Your task to perform on an android device: set the timer Image 0: 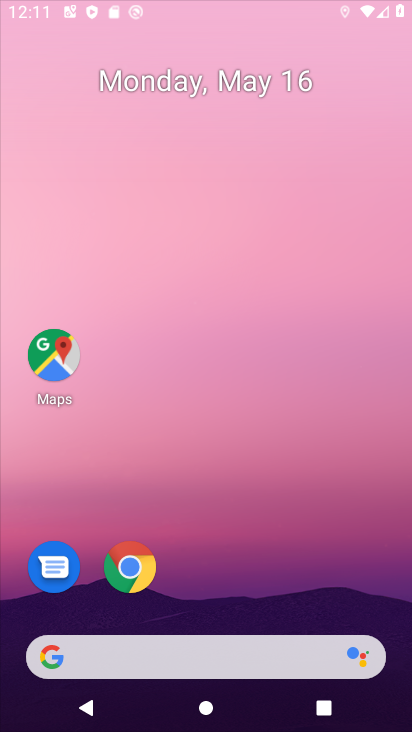
Step 0: drag from (236, 509) to (235, 42)
Your task to perform on an android device: set the timer Image 1: 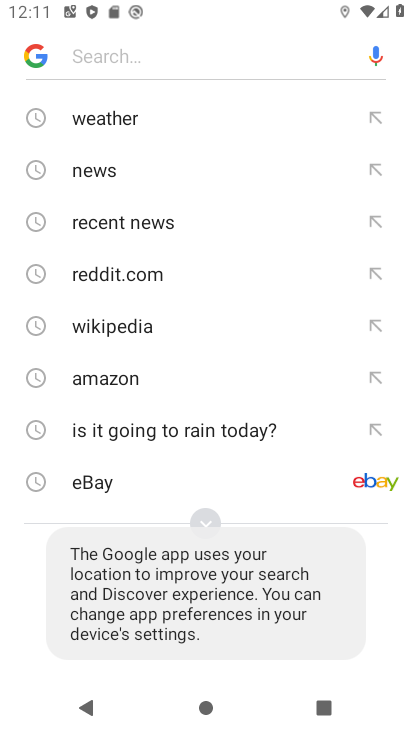
Step 1: press home button
Your task to perform on an android device: set the timer Image 2: 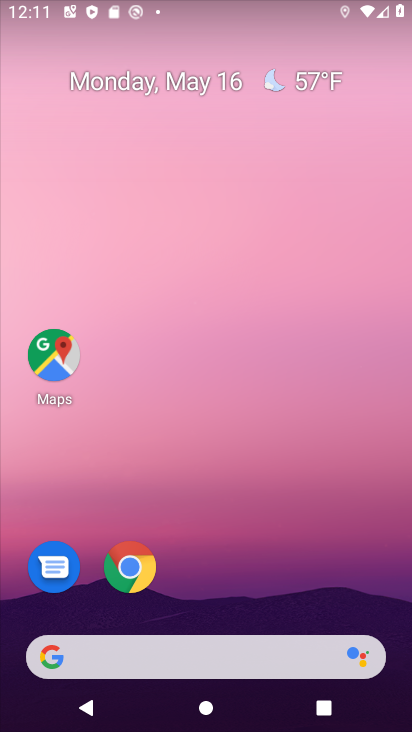
Step 2: drag from (265, 582) to (261, 129)
Your task to perform on an android device: set the timer Image 3: 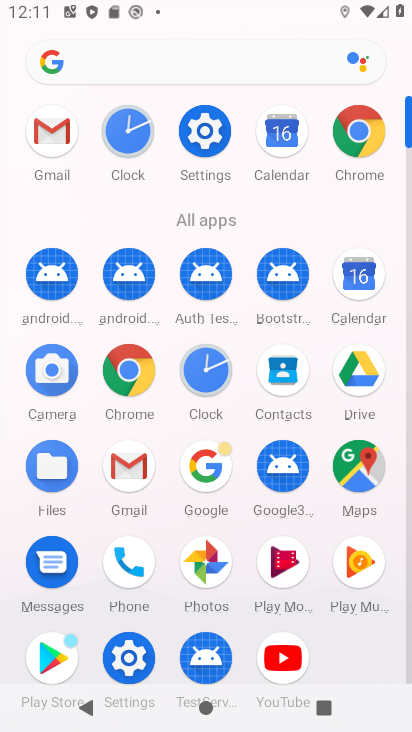
Step 3: click (122, 135)
Your task to perform on an android device: set the timer Image 4: 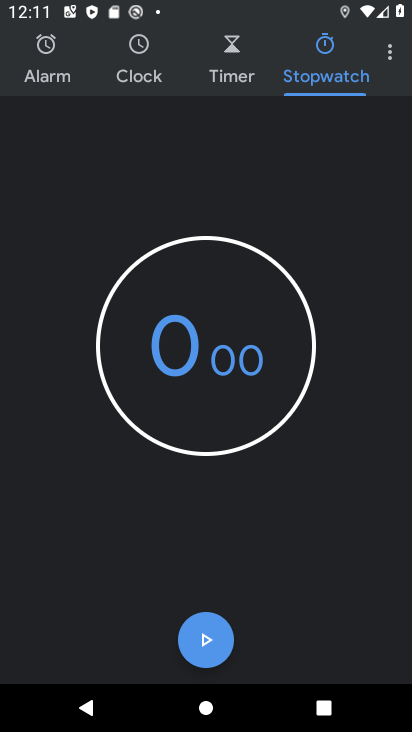
Step 4: click (238, 76)
Your task to perform on an android device: set the timer Image 5: 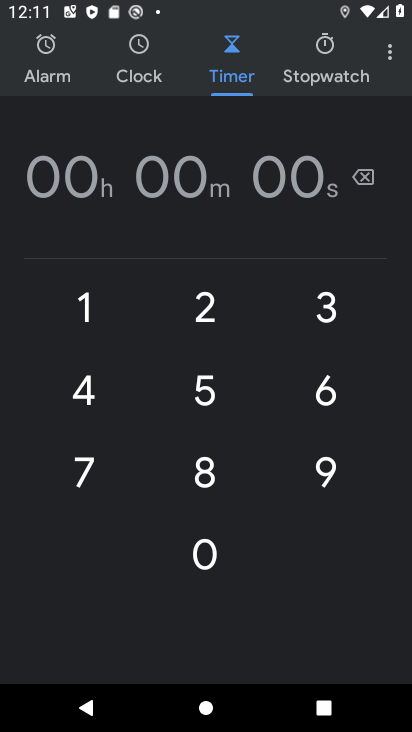
Step 5: click (217, 388)
Your task to perform on an android device: set the timer Image 6: 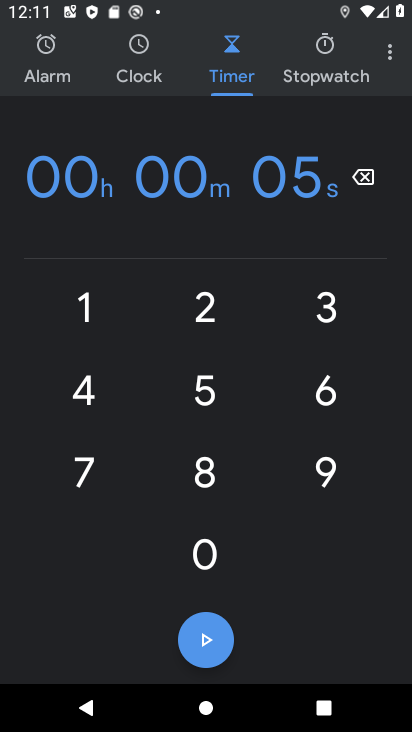
Step 6: task complete